Your task to perform on an android device: Look up the best rated headphones on Amazon. Image 0: 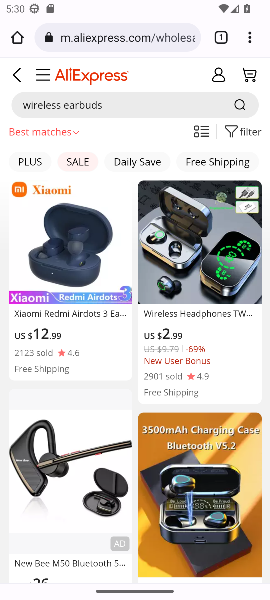
Step 0: click (139, 36)
Your task to perform on an android device: Look up the best rated headphones on Amazon. Image 1: 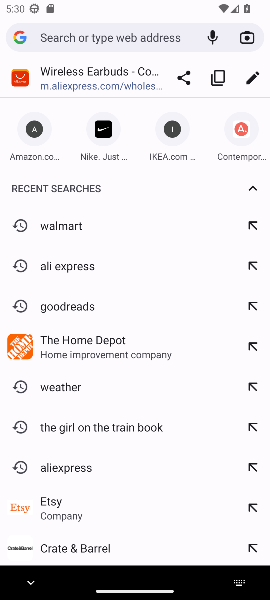
Step 1: drag from (149, 467) to (210, 239)
Your task to perform on an android device: Look up the best rated headphones on Amazon. Image 2: 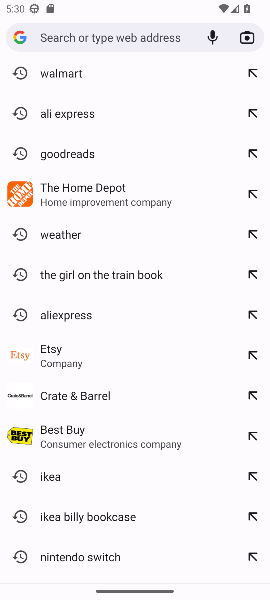
Step 2: drag from (144, 517) to (204, 300)
Your task to perform on an android device: Look up the best rated headphones on Amazon. Image 3: 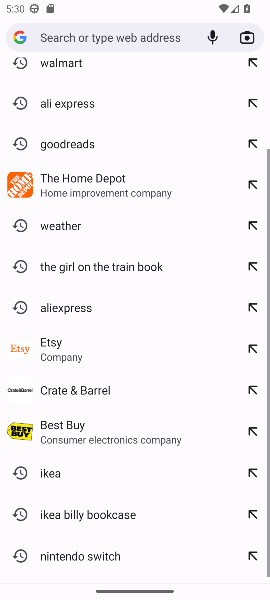
Step 3: drag from (209, 289) to (203, 503)
Your task to perform on an android device: Look up the best rated headphones on Amazon. Image 4: 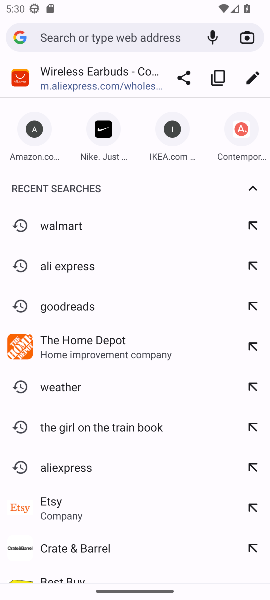
Step 4: type "Amazon"
Your task to perform on an android device: Look up the best rated headphones on Amazon. Image 5: 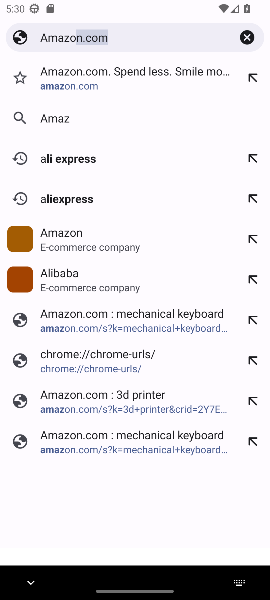
Step 5: press enter
Your task to perform on an android device: Look up the best rated headphones on Amazon. Image 6: 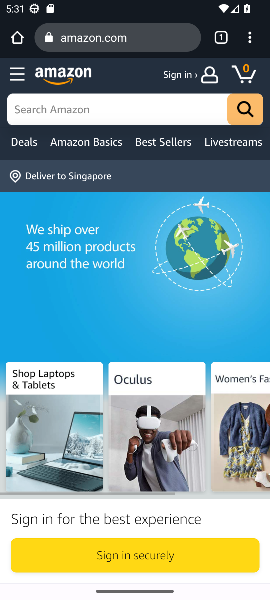
Step 6: click (159, 110)
Your task to perform on an android device: Look up the best rated headphones on Amazon. Image 7: 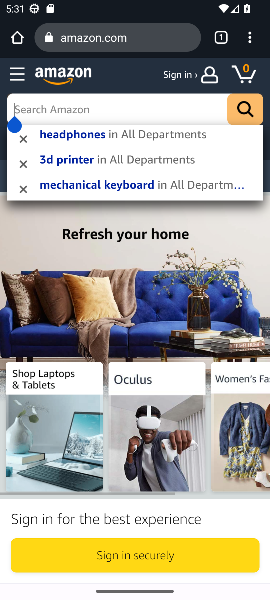
Step 7: press enter
Your task to perform on an android device: Look up the best rated headphones on Amazon. Image 8: 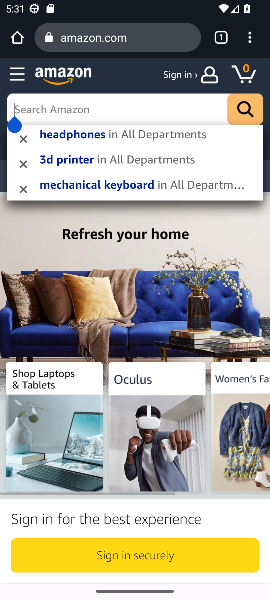
Step 8: type "headphones"
Your task to perform on an android device: Look up the best rated headphones on Amazon. Image 9: 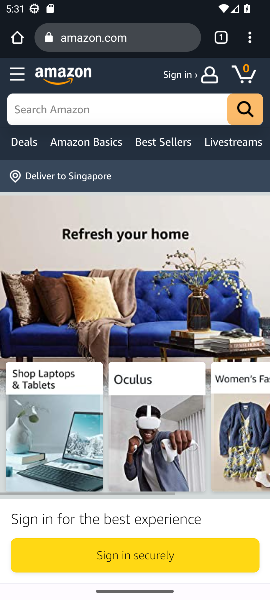
Step 9: click (167, 102)
Your task to perform on an android device: Look up the best rated headphones on Amazon. Image 10: 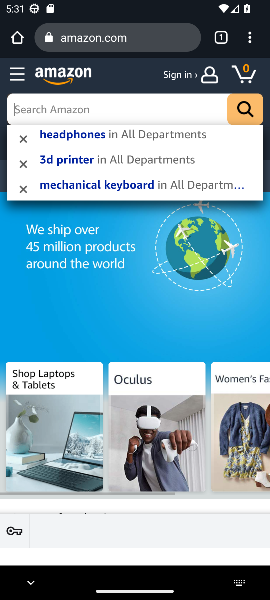
Step 10: click (93, 135)
Your task to perform on an android device: Look up the best rated headphones on Amazon. Image 11: 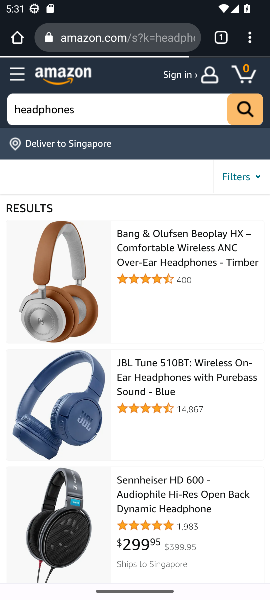
Step 11: task complete